Your task to perform on an android device: turn off sleep mode Image 0: 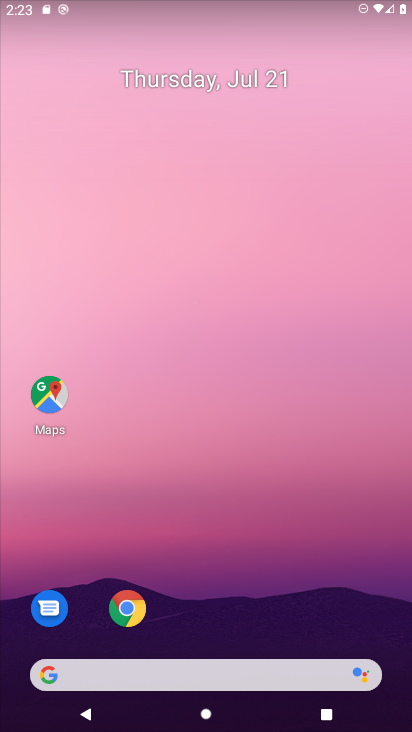
Step 0: drag from (197, 633) to (202, 152)
Your task to perform on an android device: turn off sleep mode Image 1: 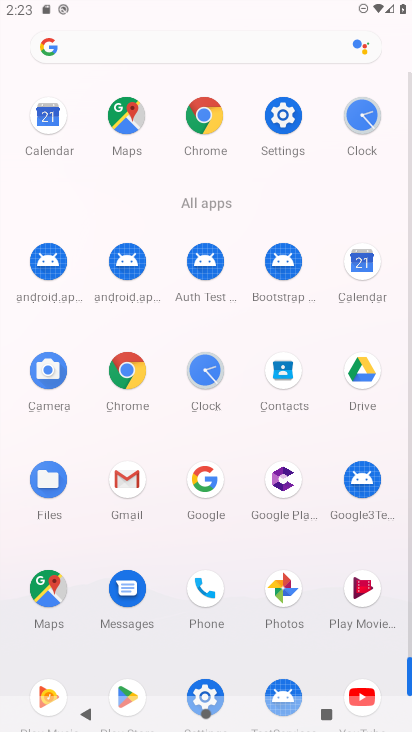
Step 1: click (286, 128)
Your task to perform on an android device: turn off sleep mode Image 2: 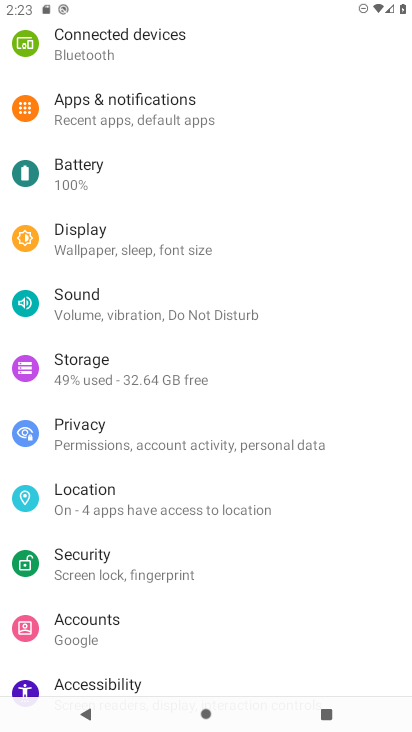
Step 2: click (114, 256)
Your task to perform on an android device: turn off sleep mode Image 3: 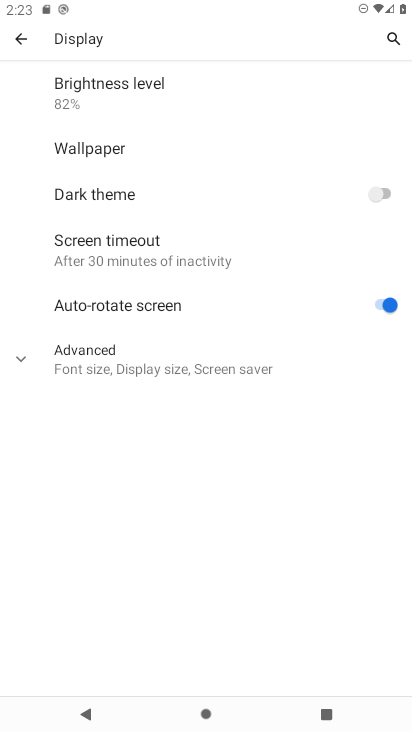
Step 3: click (140, 265)
Your task to perform on an android device: turn off sleep mode Image 4: 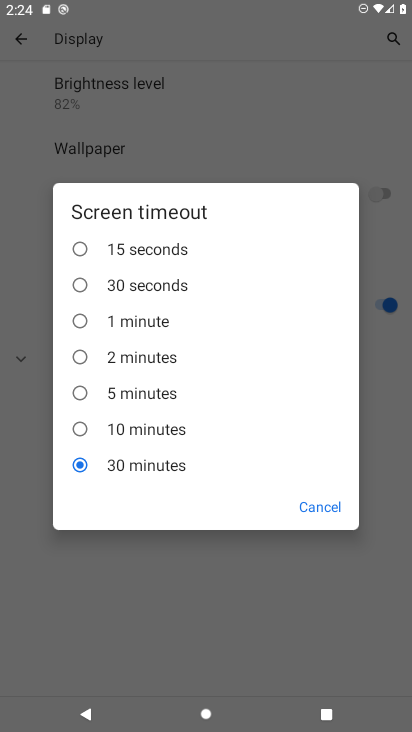
Step 4: click (143, 313)
Your task to perform on an android device: turn off sleep mode Image 5: 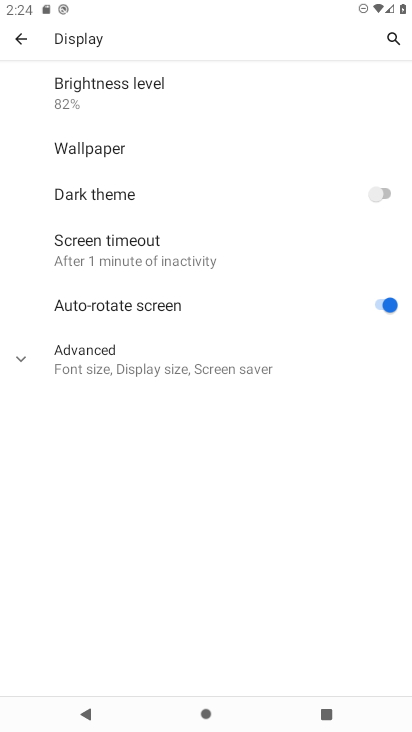
Step 5: click (118, 264)
Your task to perform on an android device: turn off sleep mode Image 6: 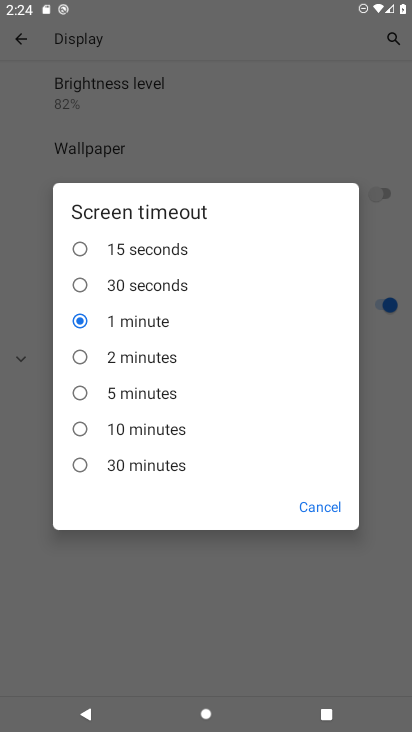
Step 6: click (132, 469)
Your task to perform on an android device: turn off sleep mode Image 7: 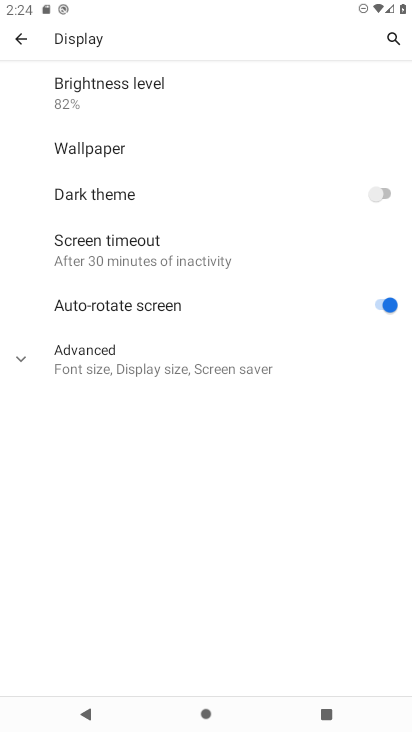
Step 7: task complete